Your task to perform on an android device: set an alarm Image 0: 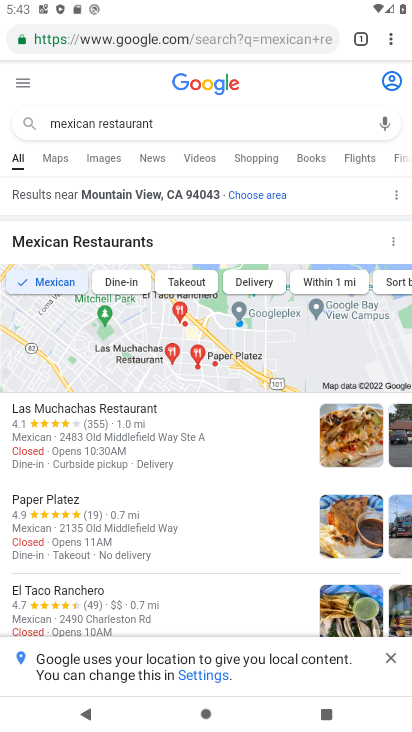
Step 0: press home button
Your task to perform on an android device: set an alarm Image 1: 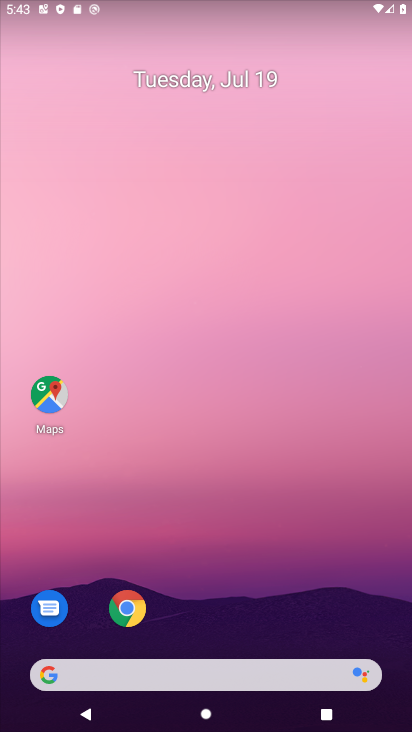
Step 1: drag from (303, 637) to (373, 5)
Your task to perform on an android device: set an alarm Image 2: 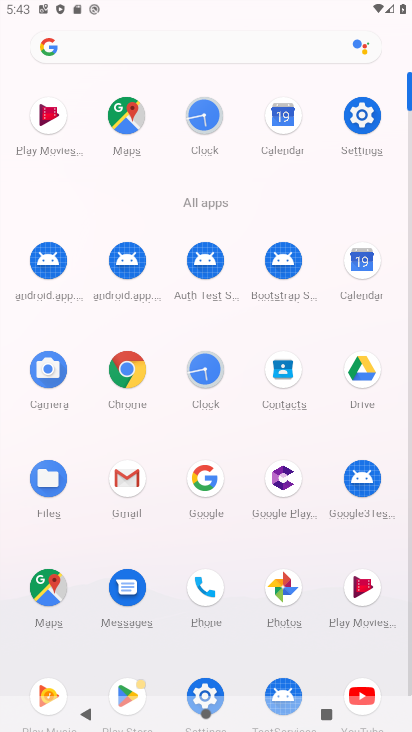
Step 2: click (209, 365)
Your task to perform on an android device: set an alarm Image 3: 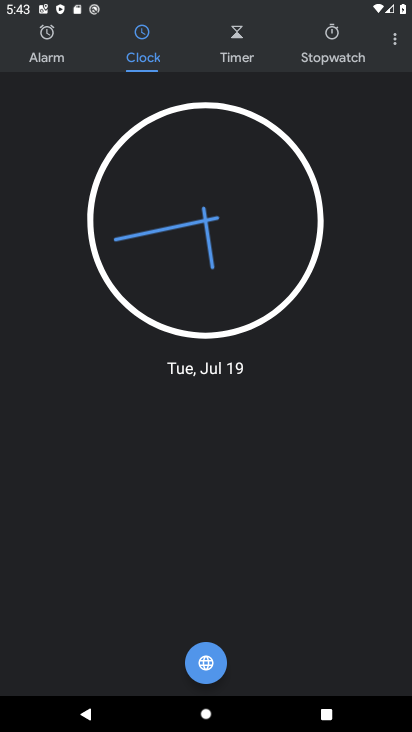
Step 3: click (51, 40)
Your task to perform on an android device: set an alarm Image 4: 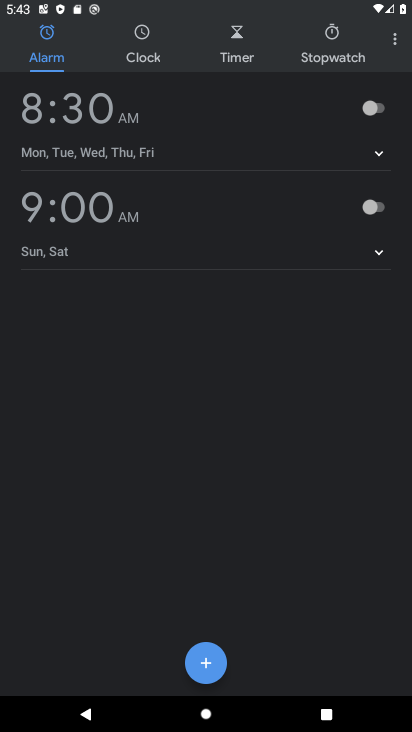
Step 4: click (379, 207)
Your task to perform on an android device: set an alarm Image 5: 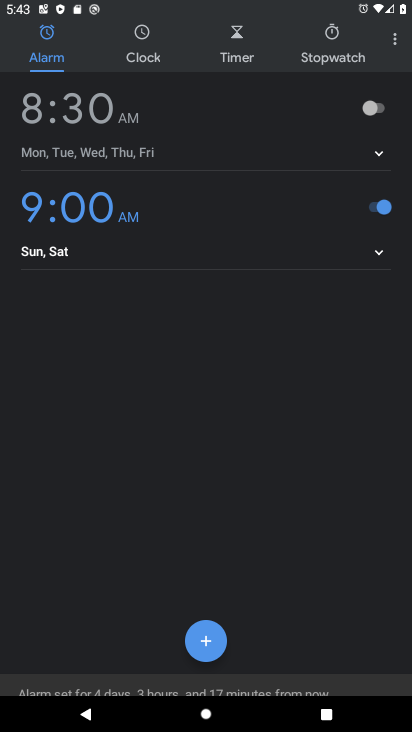
Step 5: task complete